Your task to perform on an android device: Go to sound settings Image 0: 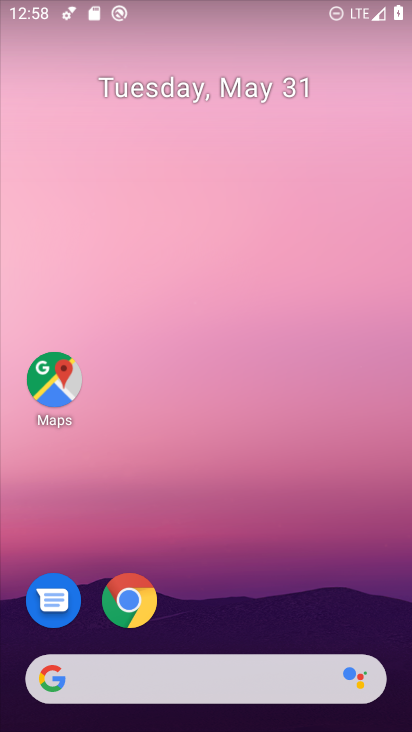
Step 0: drag from (223, 719) to (177, 0)
Your task to perform on an android device: Go to sound settings Image 1: 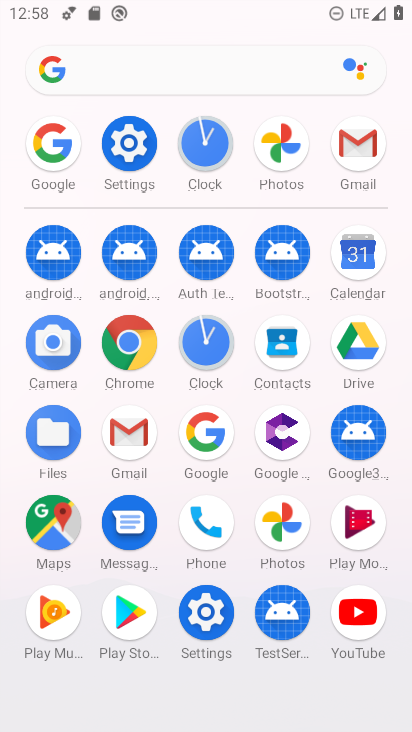
Step 1: click (126, 151)
Your task to perform on an android device: Go to sound settings Image 2: 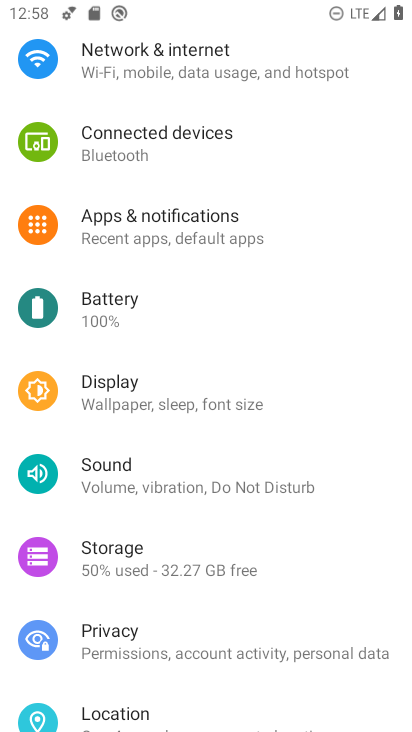
Step 2: click (114, 467)
Your task to perform on an android device: Go to sound settings Image 3: 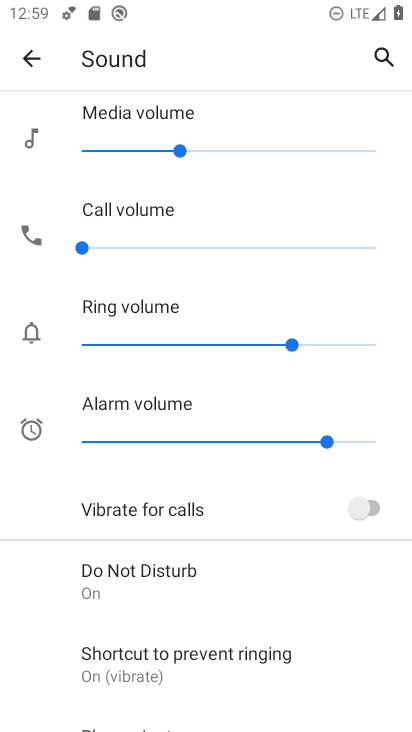
Step 3: task complete